Your task to perform on an android device: turn off priority inbox in the gmail app Image 0: 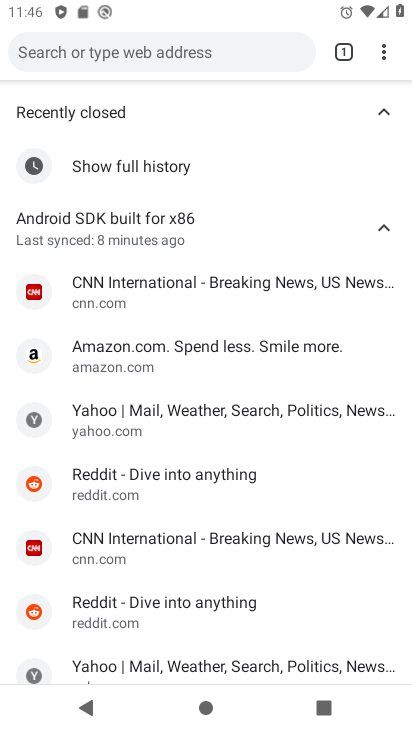
Step 0: press home button
Your task to perform on an android device: turn off priority inbox in the gmail app Image 1: 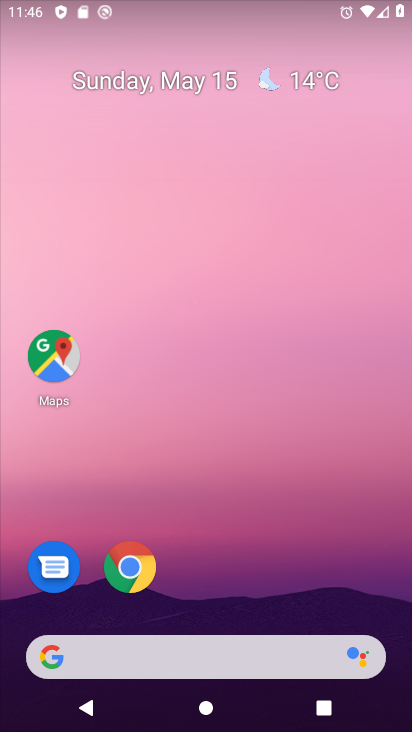
Step 1: drag from (241, 612) to (274, 46)
Your task to perform on an android device: turn off priority inbox in the gmail app Image 2: 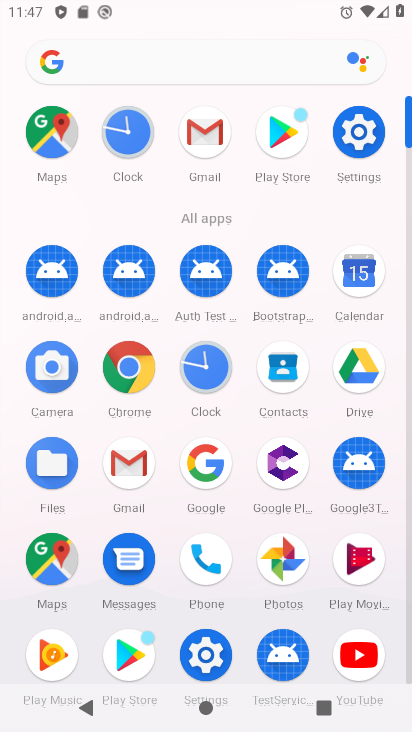
Step 2: click (132, 461)
Your task to perform on an android device: turn off priority inbox in the gmail app Image 3: 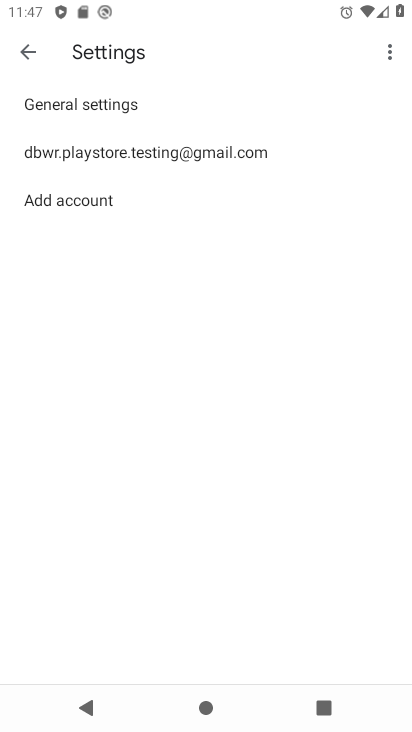
Step 3: click (111, 160)
Your task to perform on an android device: turn off priority inbox in the gmail app Image 4: 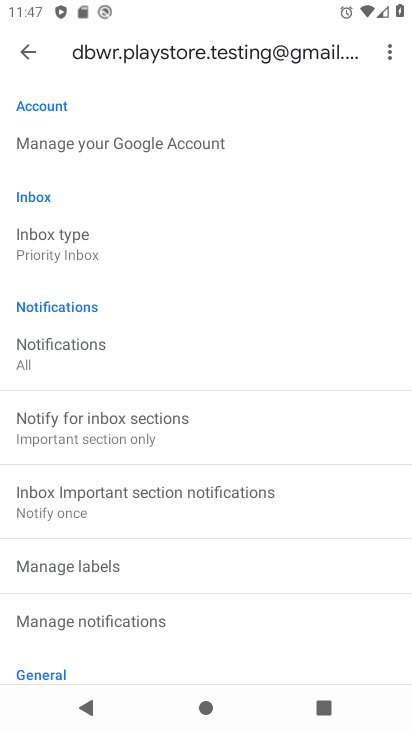
Step 4: click (100, 249)
Your task to perform on an android device: turn off priority inbox in the gmail app Image 5: 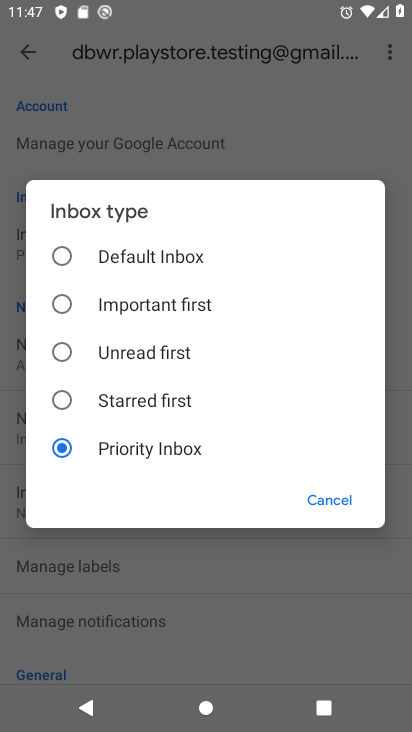
Step 5: click (138, 246)
Your task to perform on an android device: turn off priority inbox in the gmail app Image 6: 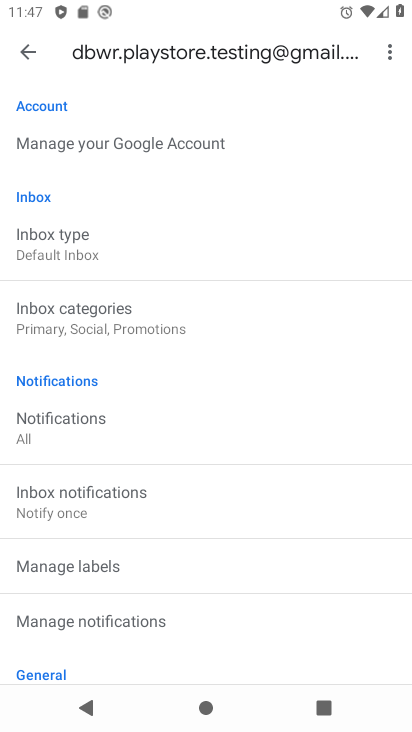
Step 6: task complete